Your task to perform on an android device: open a bookmark in the chrome app Image 0: 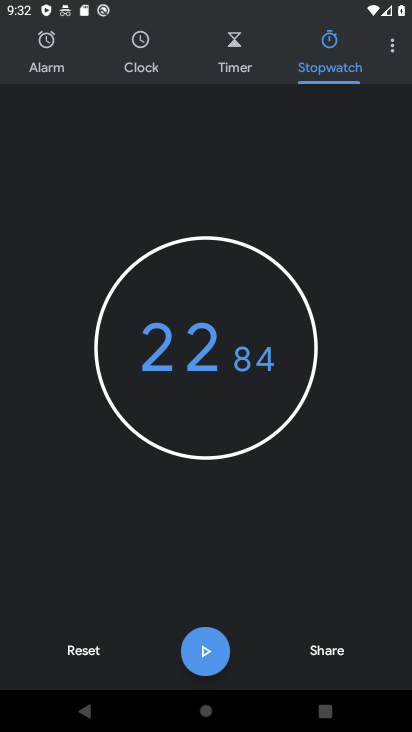
Step 0: press back button
Your task to perform on an android device: open a bookmark in the chrome app Image 1: 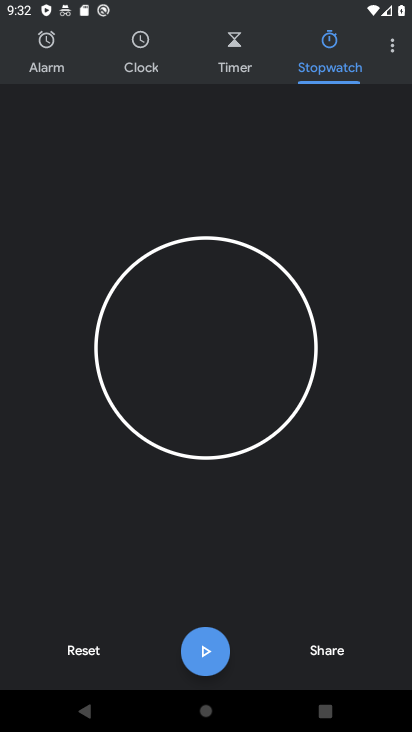
Step 1: press back button
Your task to perform on an android device: open a bookmark in the chrome app Image 2: 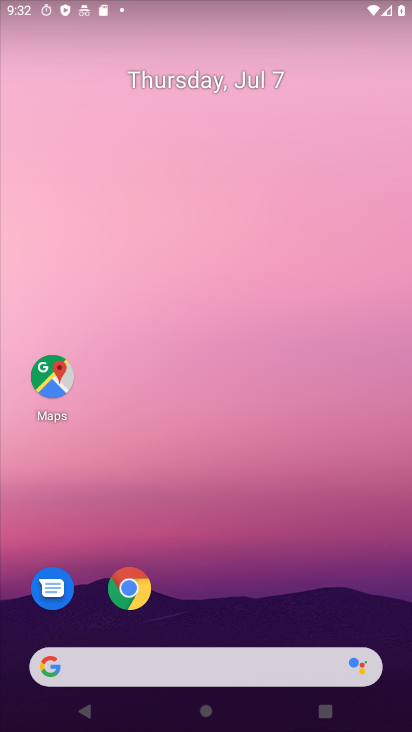
Step 2: drag from (230, 694) to (168, 322)
Your task to perform on an android device: open a bookmark in the chrome app Image 3: 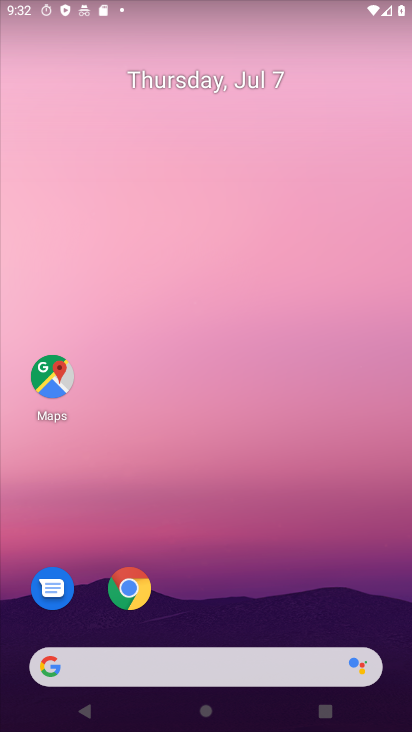
Step 3: drag from (253, 507) to (229, 13)
Your task to perform on an android device: open a bookmark in the chrome app Image 4: 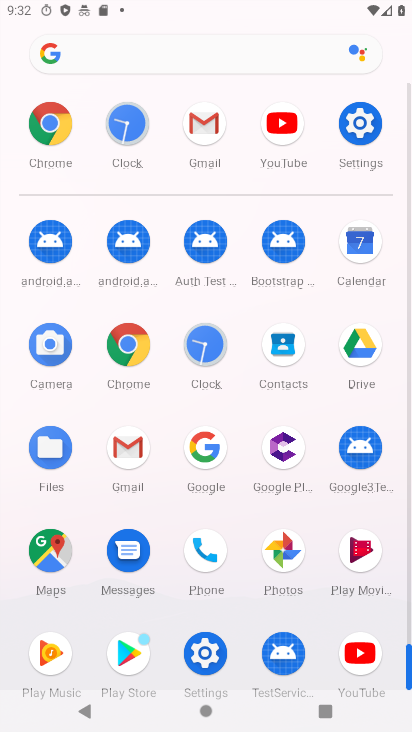
Step 4: click (357, 125)
Your task to perform on an android device: open a bookmark in the chrome app Image 5: 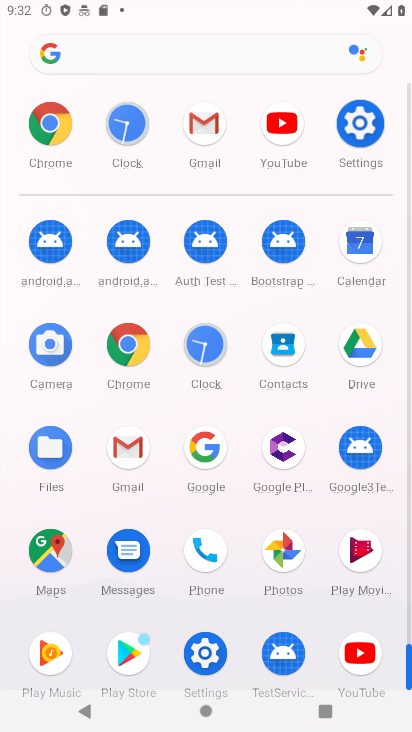
Step 5: click (351, 127)
Your task to perform on an android device: open a bookmark in the chrome app Image 6: 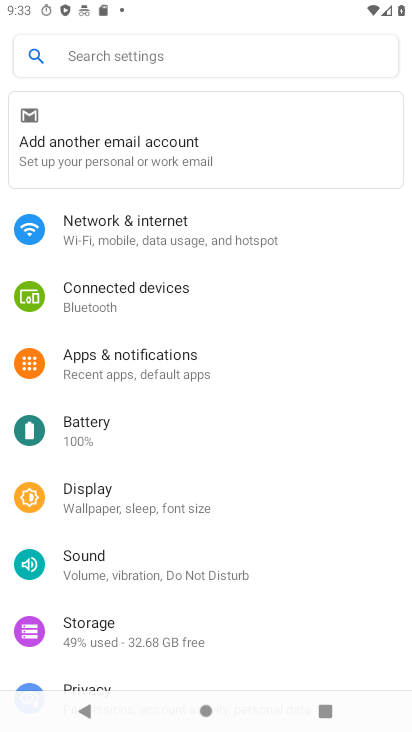
Step 6: press back button
Your task to perform on an android device: open a bookmark in the chrome app Image 7: 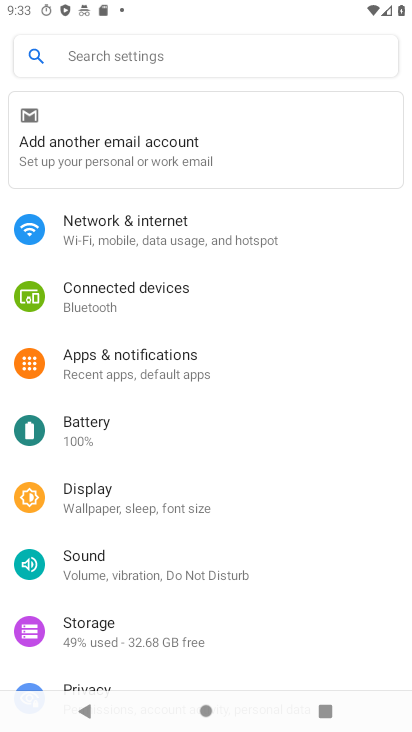
Step 7: press back button
Your task to perform on an android device: open a bookmark in the chrome app Image 8: 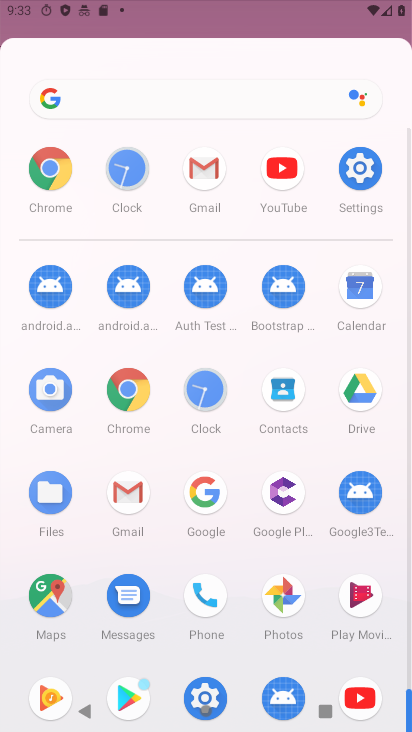
Step 8: press back button
Your task to perform on an android device: open a bookmark in the chrome app Image 9: 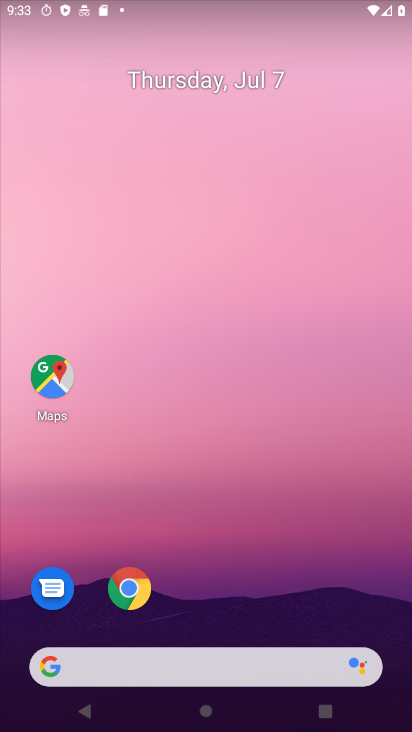
Step 9: drag from (194, 506) to (80, 13)
Your task to perform on an android device: open a bookmark in the chrome app Image 10: 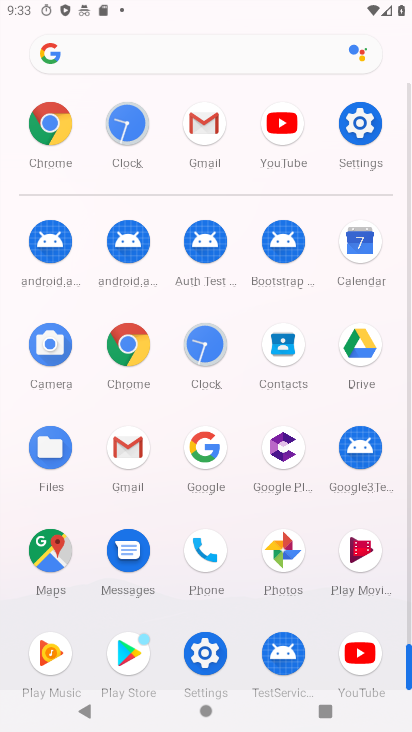
Step 10: click (52, 138)
Your task to perform on an android device: open a bookmark in the chrome app Image 11: 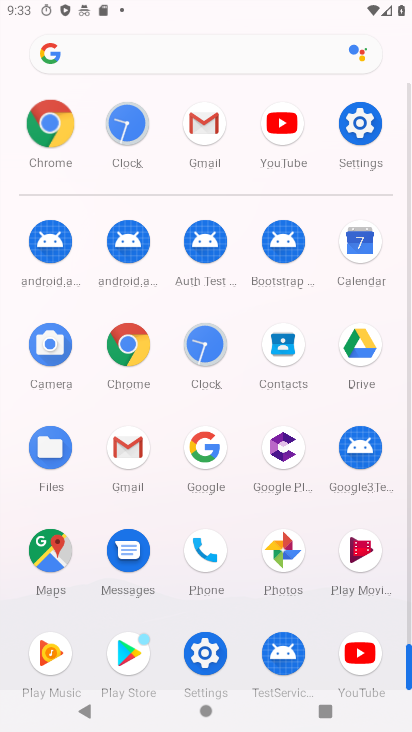
Step 11: click (52, 138)
Your task to perform on an android device: open a bookmark in the chrome app Image 12: 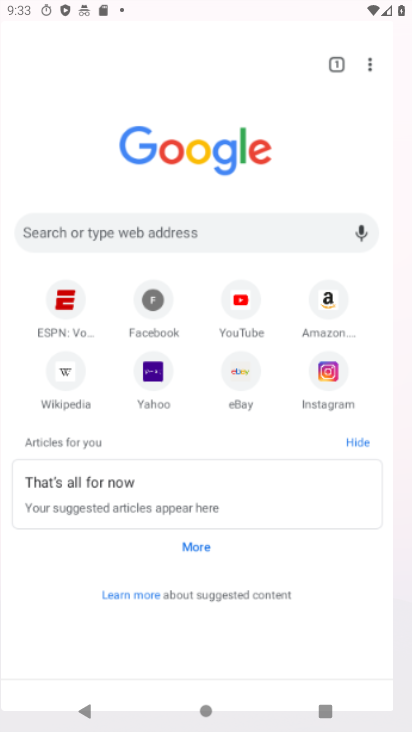
Step 12: click (53, 137)
Your task to perform on an android device: open a bookmark in the chrome app Image 13: 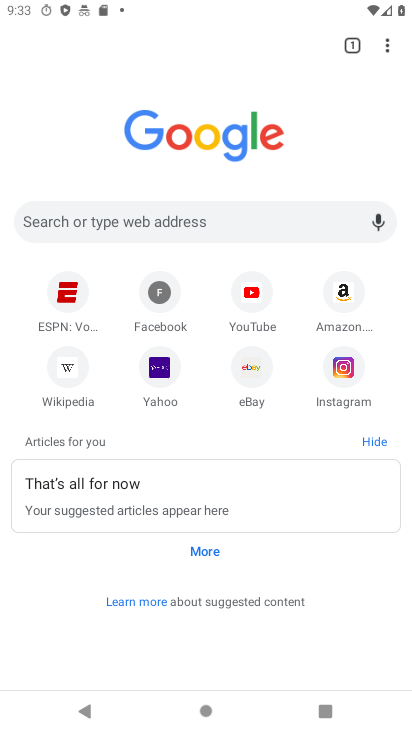
Step 13: click (389, 57)
Your task to perform on an android device: open a bookmark in the chrome app Image 14: 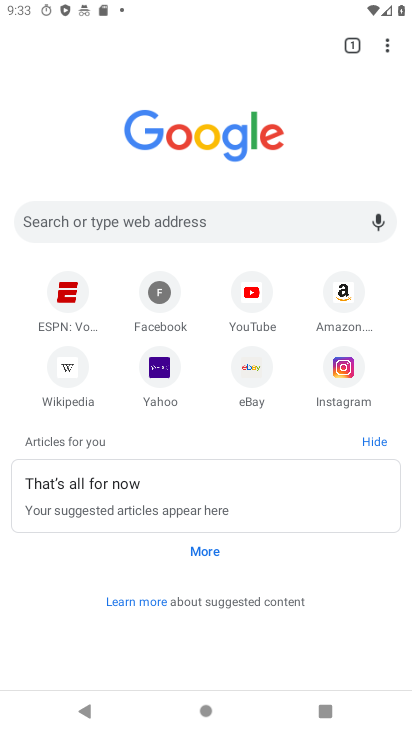
Step 14: drag from (385, 47) to (228, 166)
Your task to perform on an android device: open a bookmark in the chrome app Image 15: 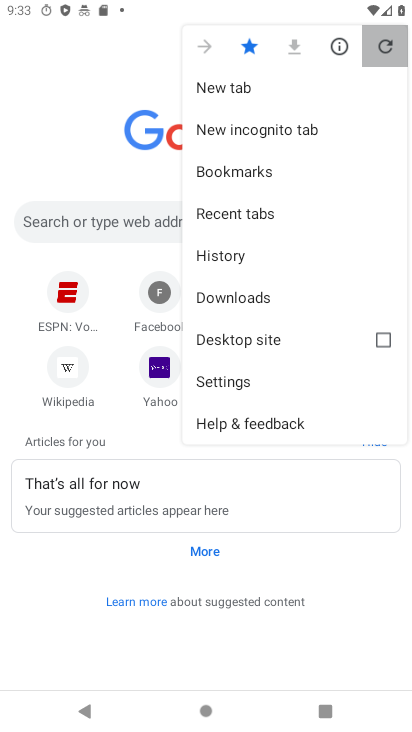
Step 15: click (233, 165)
Your task to perform on an android device: open a bookmark in the chrome app Image 16: 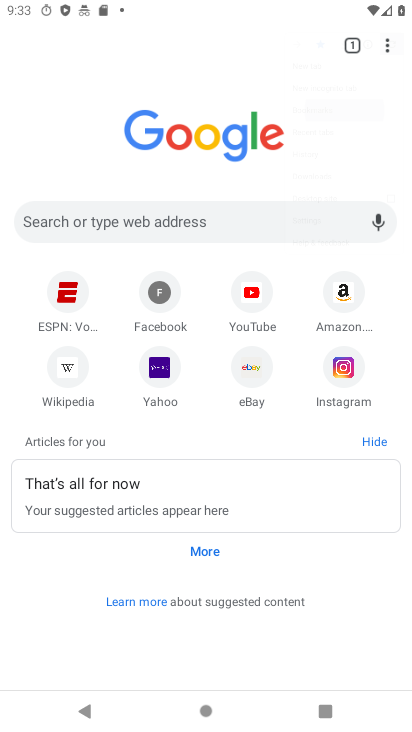
Step 16: click (234, 166)
Your task to perform on an android device: open a bookmark in the chrome app Image 17: 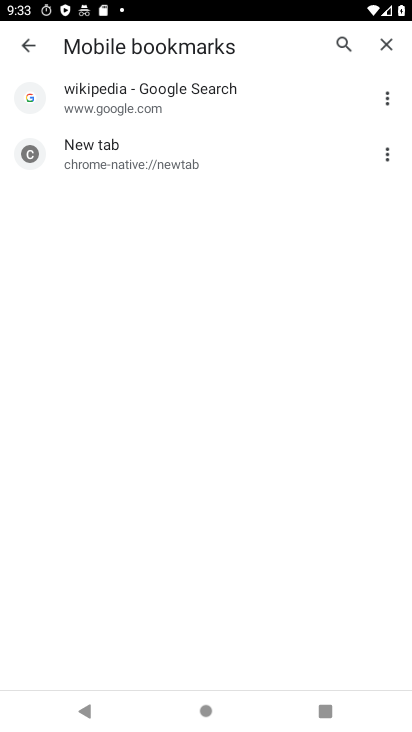
Step 17: task complete